Your task to perform on an android device: Go to Maps Image 0: 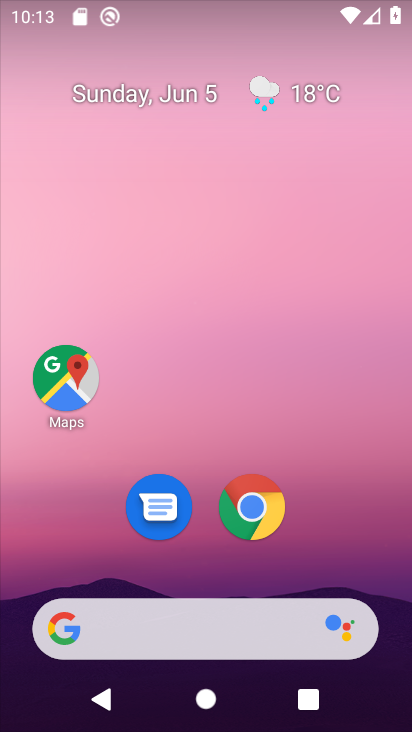
Step 0: click (70, 383)
Your task to perform on an android device: Go to Maps Image 1: 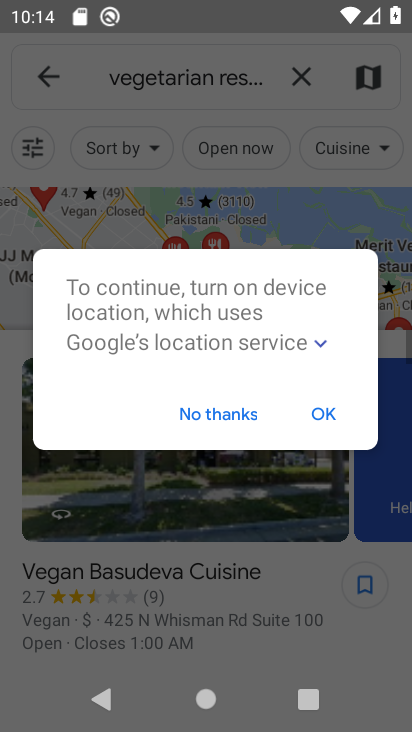
Step 1: drag from (231, 408) to (196, 408)
Your task to perform on an android device: Go to Maps Image 2: 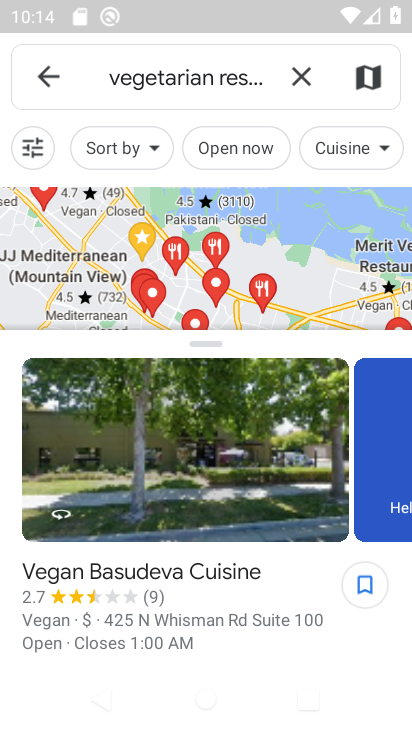
Step 2: click (43, 72)
Your task to perform on an android device: Go to Maps Image 3: 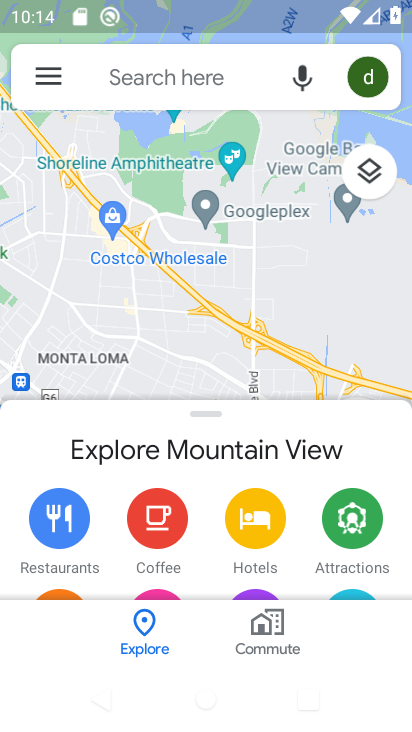
Step 3: task complete